Your task to perform on an android device: find photos in the google photos app Image 0: 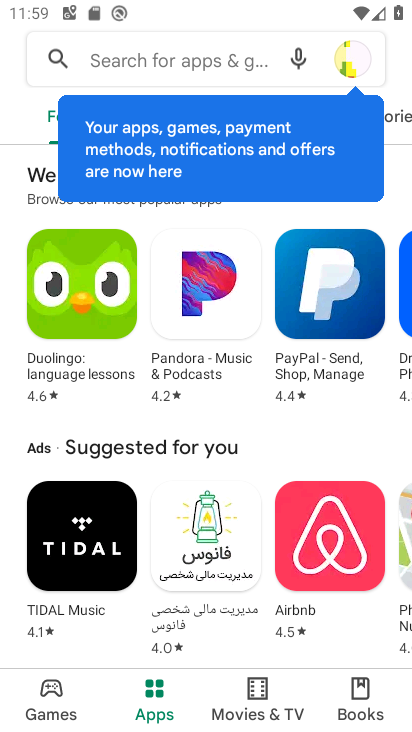
Step 0: press home button
Your task to perform on an android device: find photos in the google photos app Image 1: 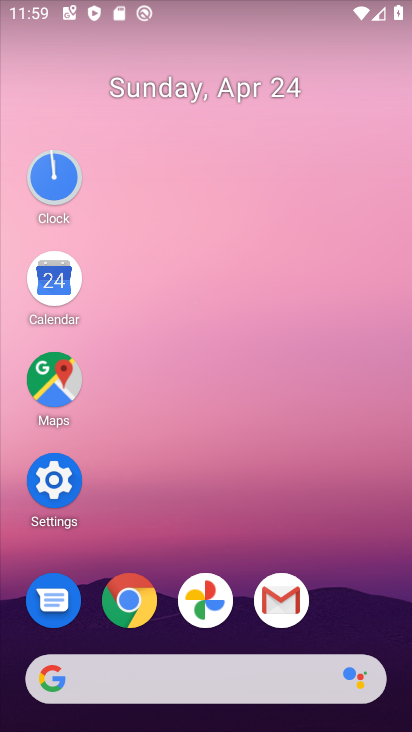
Step 1: click (201, 599)
Your task to perform on an android device: find photos in the google photos app Image 2: 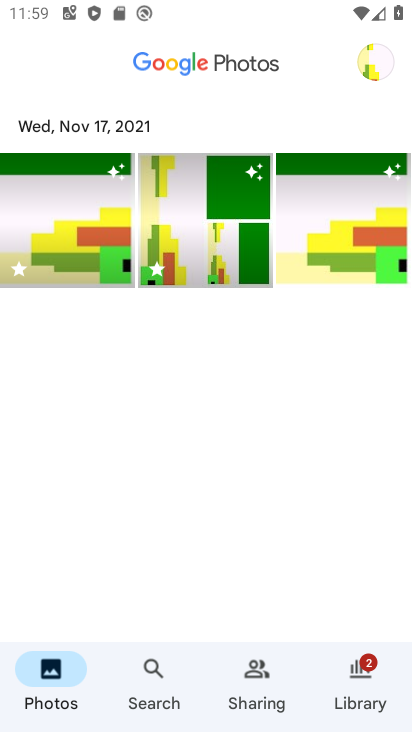
Step 2: click (150, 674)
Your task to perform on an android device: find photos in the google photos app Image 3: 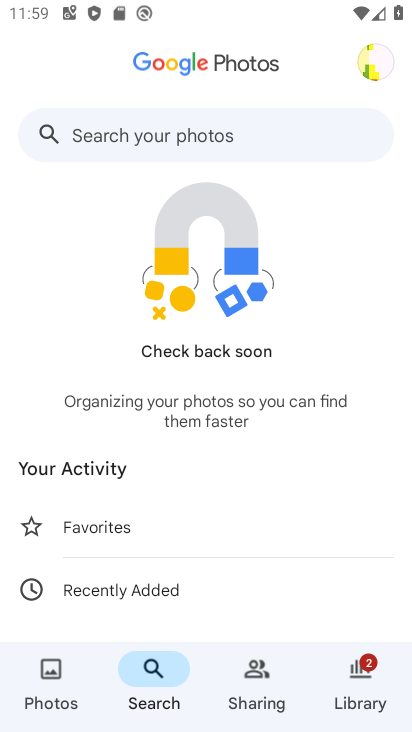
Step 3: click (179, 127)
Your task to perform on an android device: find photos in the google photos app Image 4: 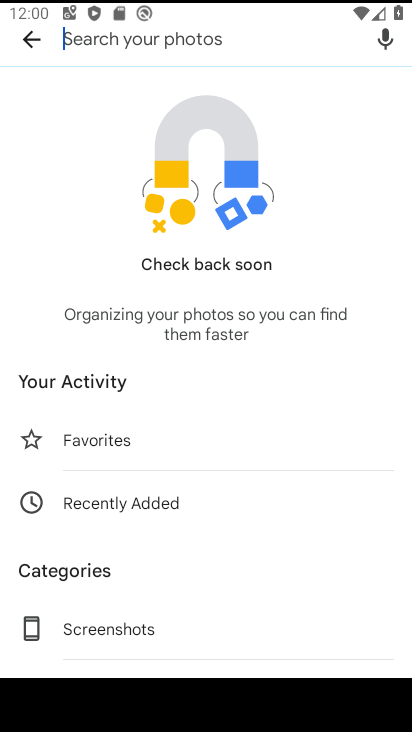
Step 4: task complete